Your task to perform on an android device: Go to Google Image 0: 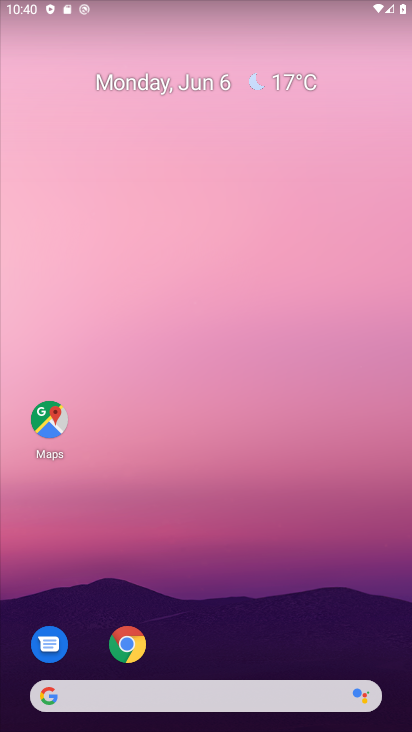
Step 0: press home button
Your task to perform on an android device: Go to Google Image 1: 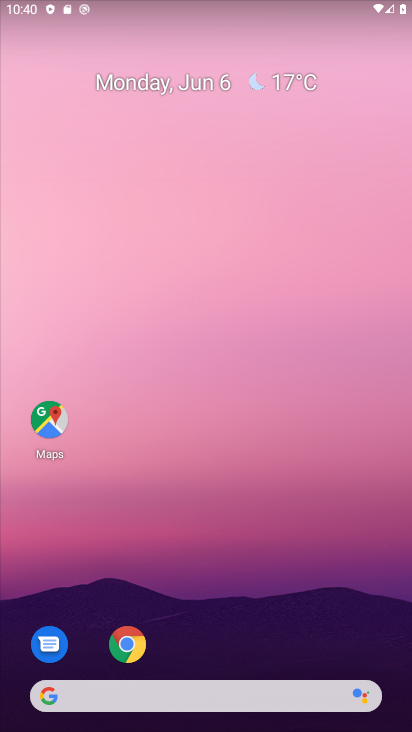
Step 1: drag from (255, 670) to (310, 17)
Your task to perform on an android device: Go to Google Image 2: 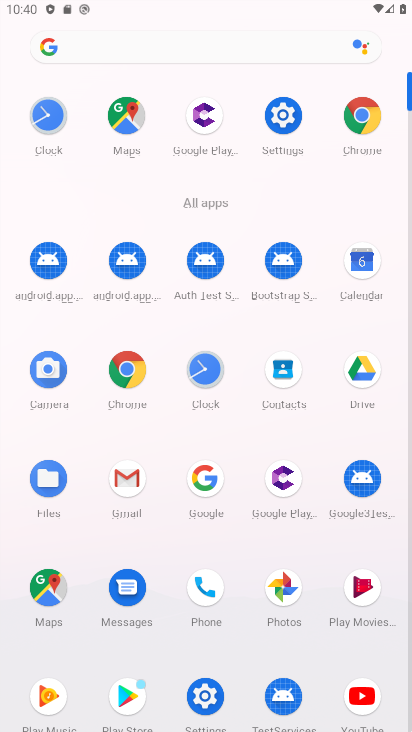
Step 2: click (201, 464)
Your task to perform on an android device: Go to Google Image 3: 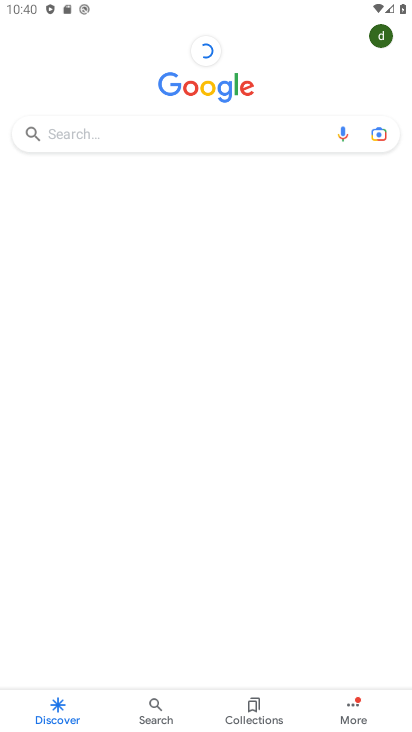
Step 3: task complete